Your task to perform on an android device: What's on my calendar today? Image 0: 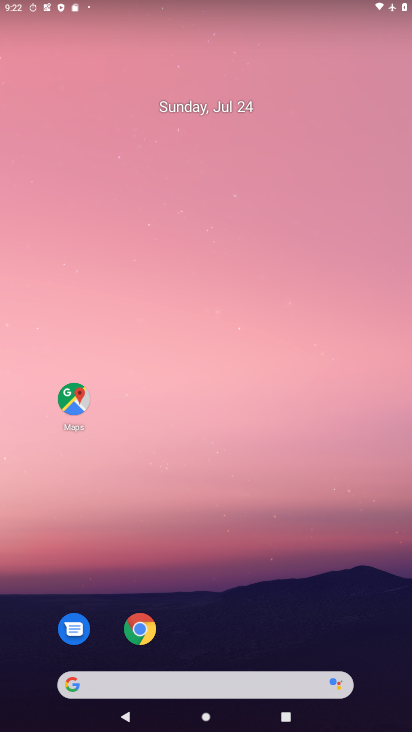
Step 0: drag from (188, 694) to (204, 244)
Your task to perform on an android device: What's on my calendar today? Image 1: 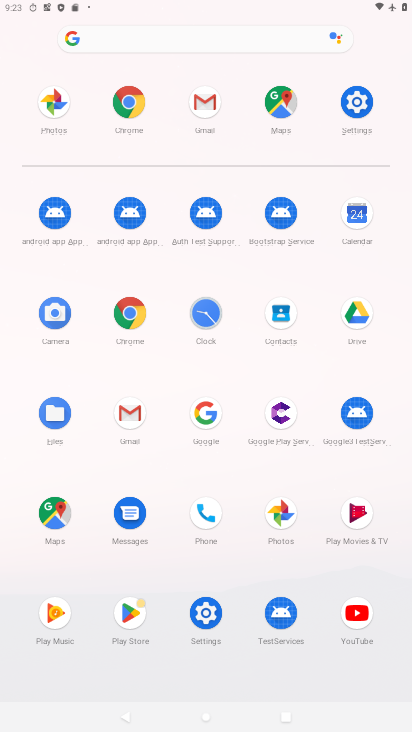
Step 1: click (358, 238)
Your task to perform on an android device: What's on my calendar today? Image 2: 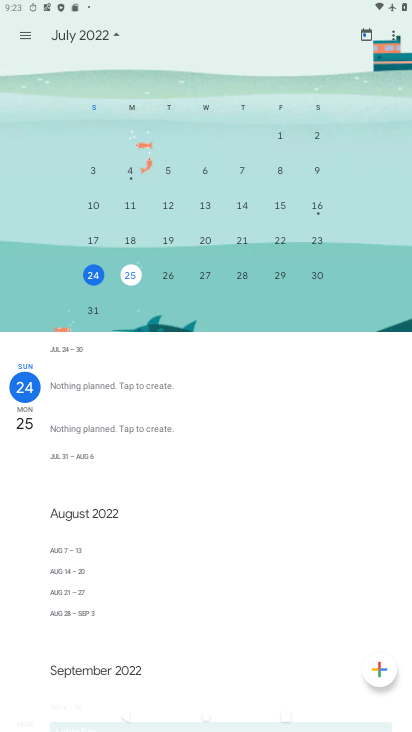
Step 2: click (92, 276)
Your task to perform on an android device: What's on my calendar today? Image 3: 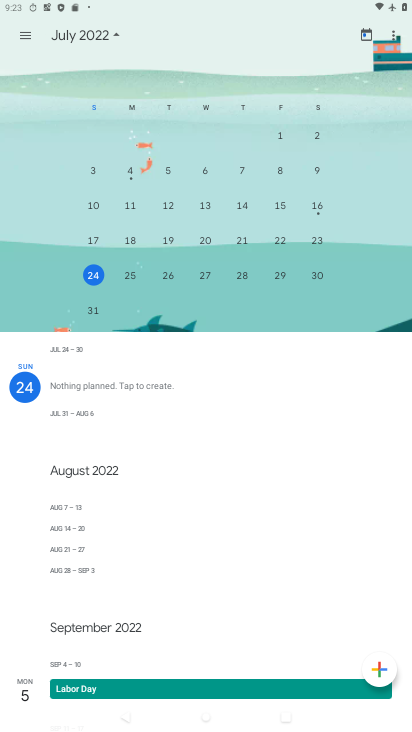
Step 3: task complete